Your task to perform on an android device: check storage Image 0: 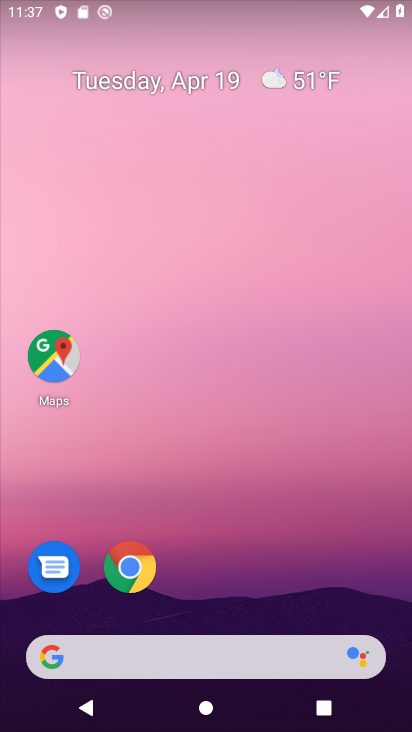
Step 0: drag from (210, 600) to (329, 28)
Your task to perform on an android device: check storage Image 1: 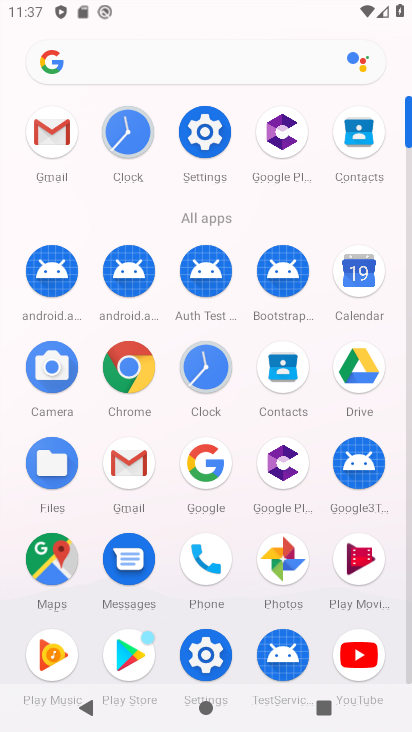
Step 1: click (200, 639)
Your task to perform on an android device: check storage Image 2: 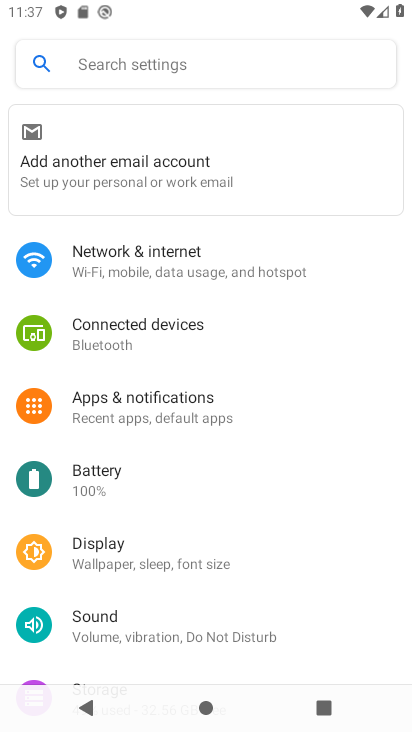
Step 2: drag from (179, 606) to (246, 201)
Your task to perform on an android device: check storage Image 3: 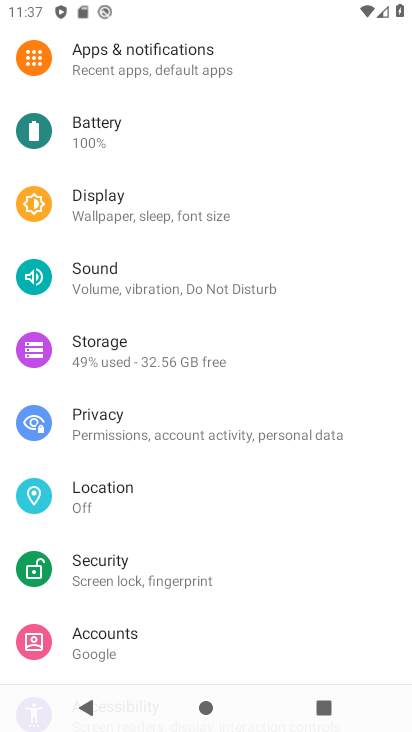
Step 3: click (122, 345)
Your task to perform on an android device: check storage Image 4: 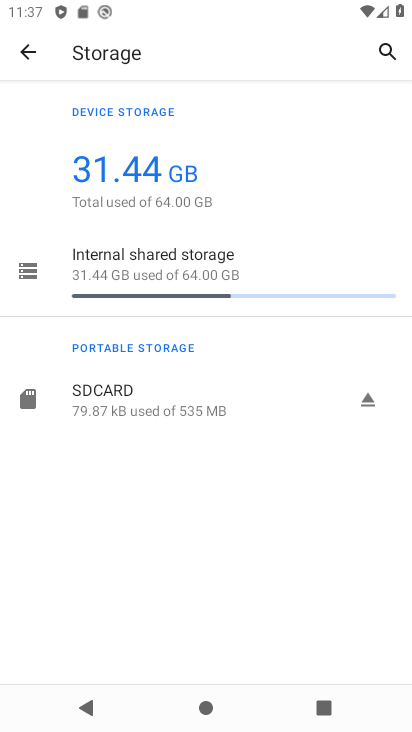
Step 4: click (161, 269)
Your task to perform on an android device: check storage Image 5: 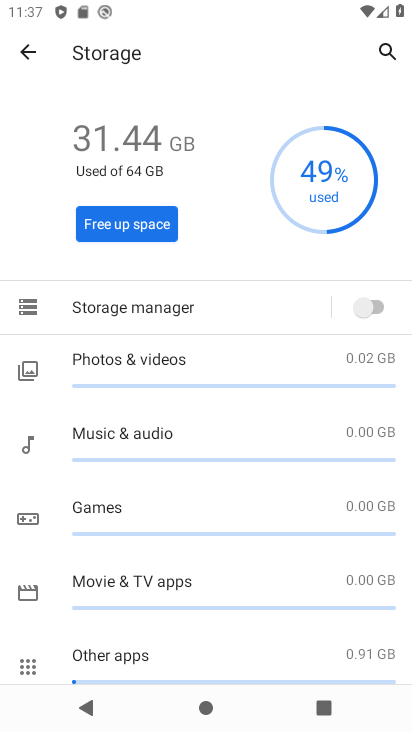
Step 5: task complete